Your task to perform on an android device: Go to CNN.com Image 0: 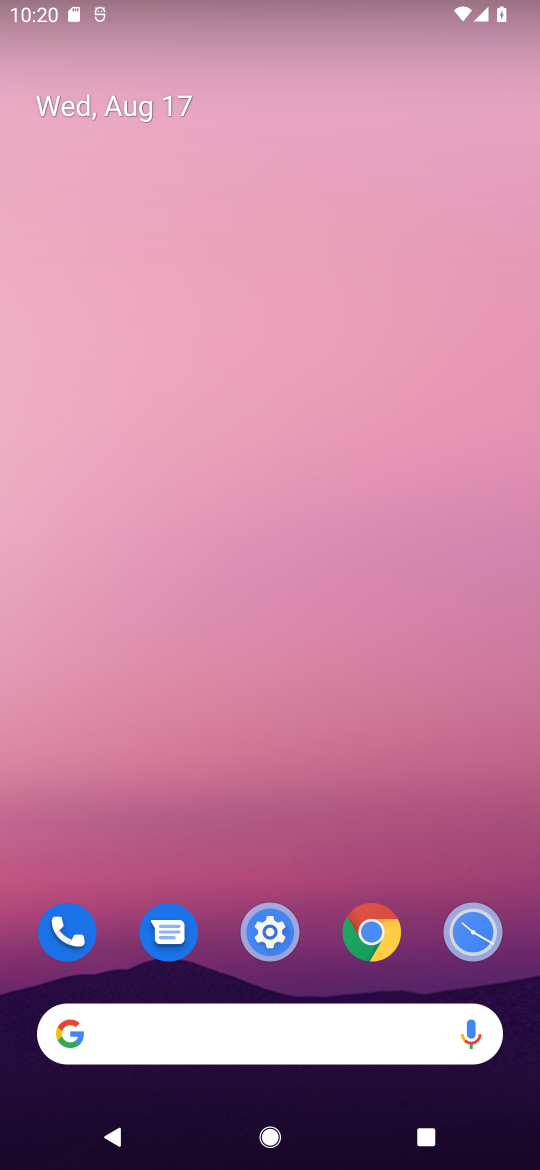
Step 0: click (371, 936)
Your task to perform on an android device: Go to CNN.com Image 1: 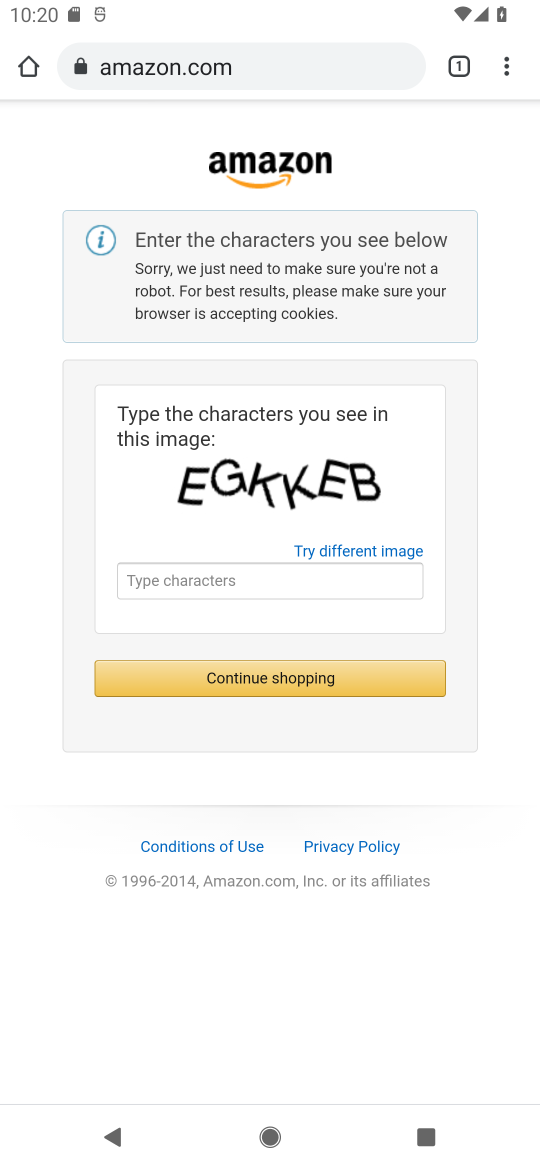
Step 1: click (505, 73)
Your task to perform on an android device: Go to CNN.com Image 2: 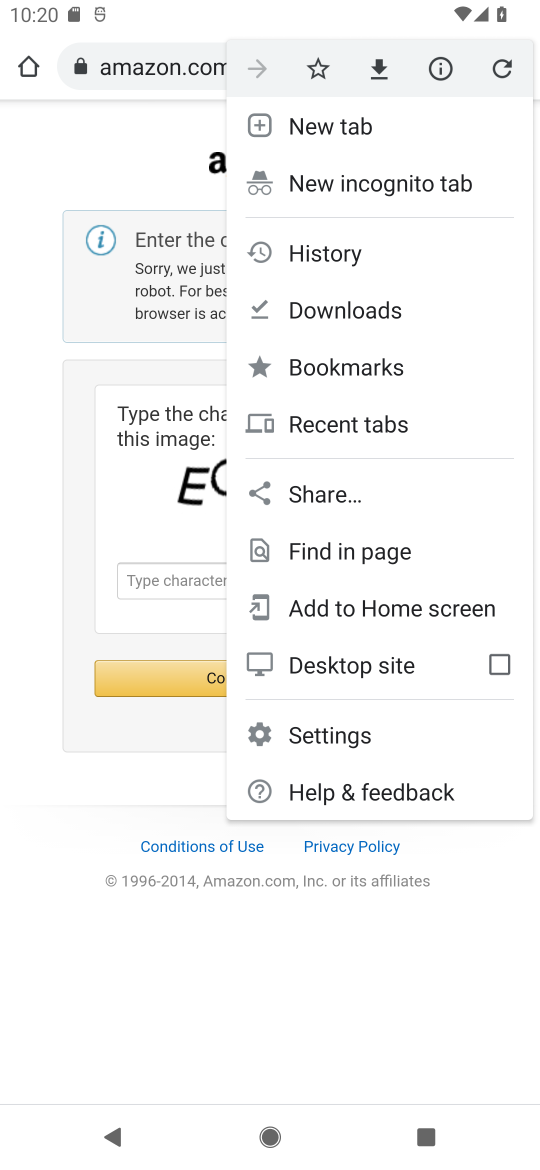
Step 2: click (329, 122)
Your task to perform on an android device: Go to CNN.com Image 3: 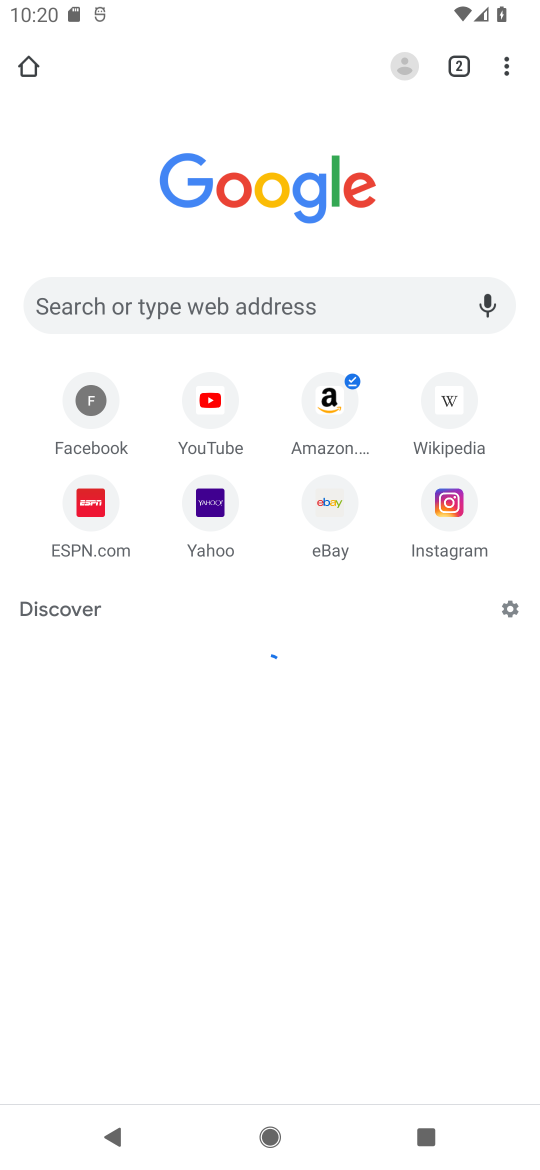
Step 3: click (239, 301)
Your task to perform on an android device: Go to CNN.com Image 4: 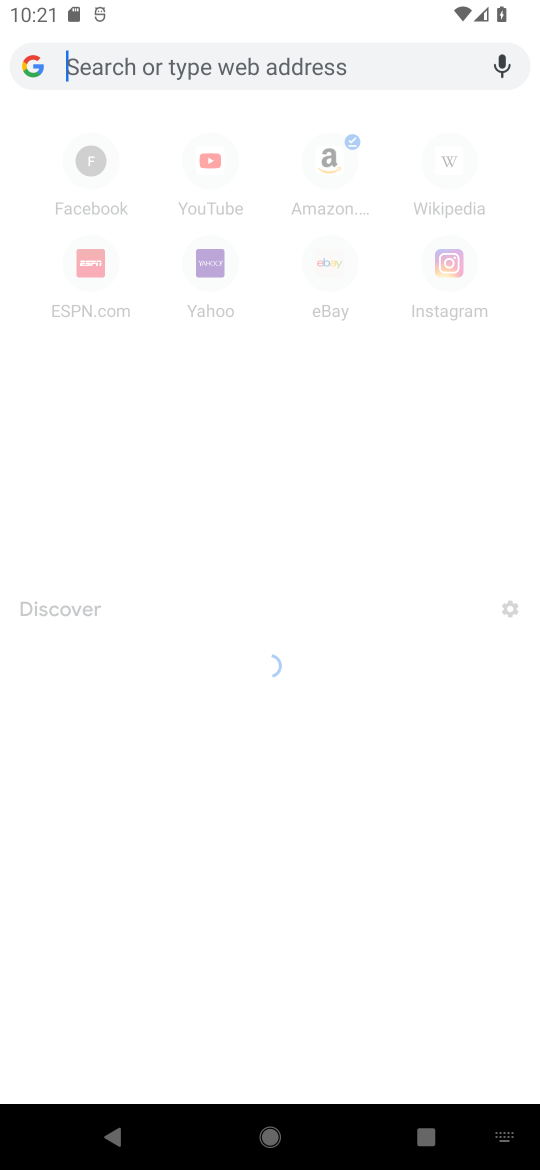
Step 4: type "CNN.com"
Your task to perform on an android device: Go to CNN.com Image 5: 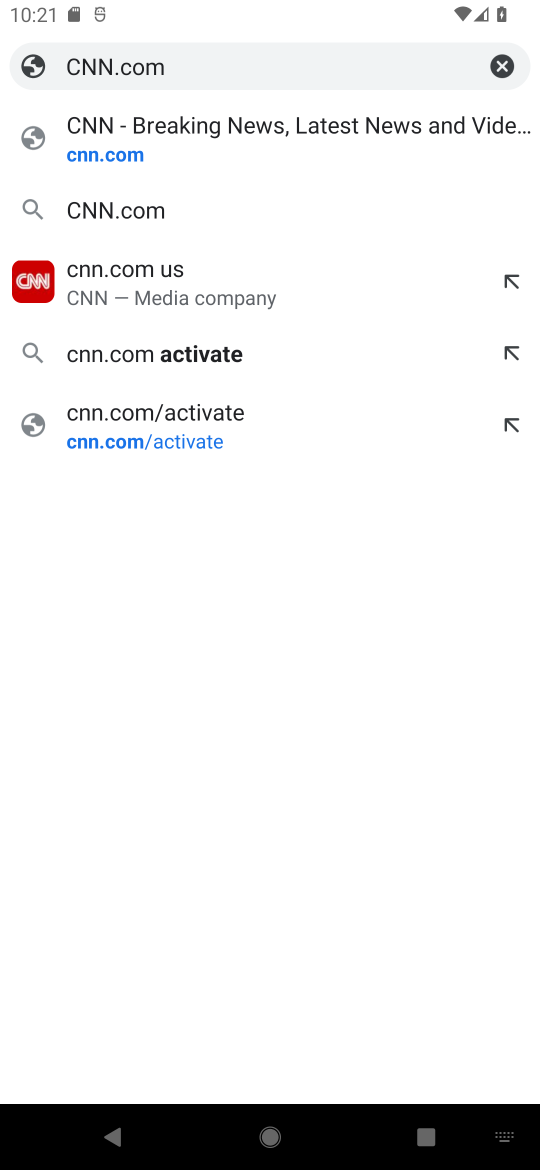
Step 5: click (127, 122)
Your task to perform on an android device: Go to CNN.com Image 6: 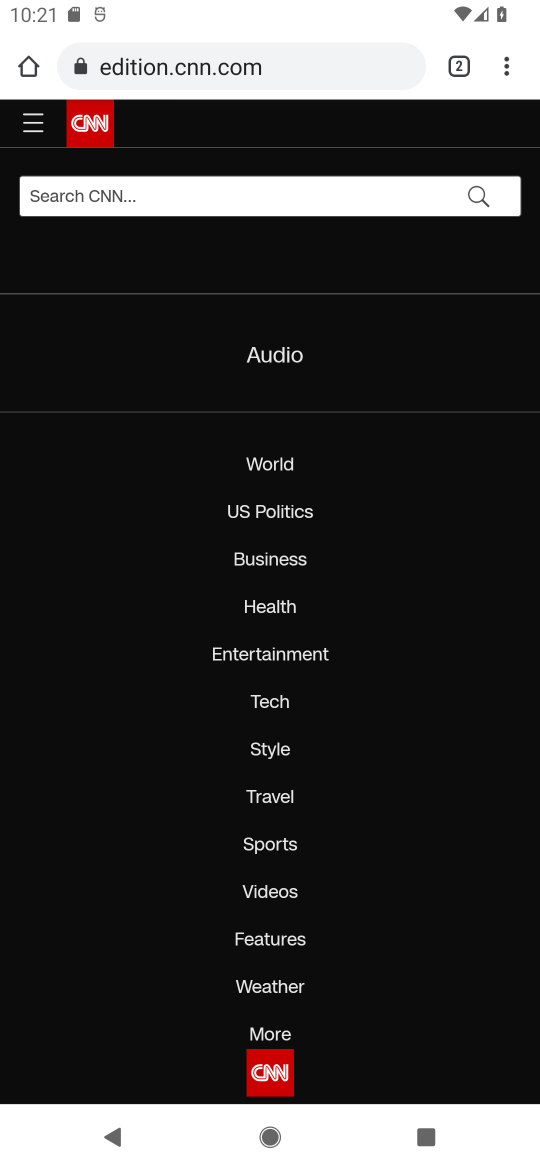
Step 6: task complete